Your task to perform on an android device: Is it going to rain tomorrow? Image 0: 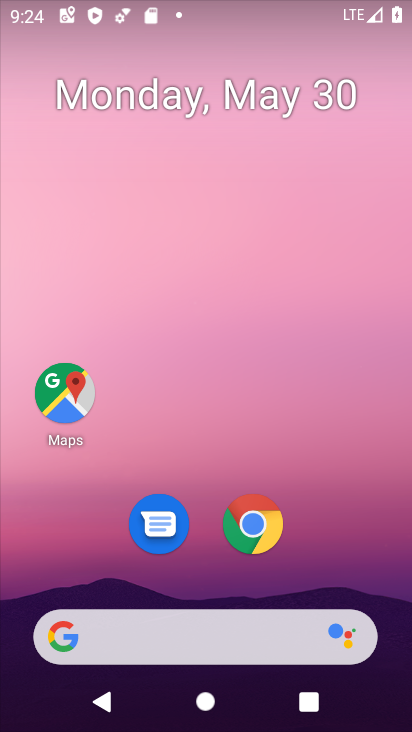
Step 0: click (245, 632)
Your task to perform on an android device: Is it going to rain tomorrow? Image 1: 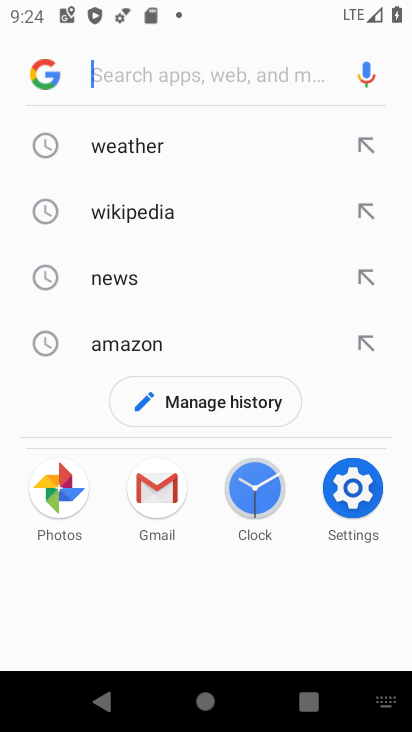
Step 1: click (126, 141)
Your task to perform on an android device: Is it going to rain tomorrow? Image 2: 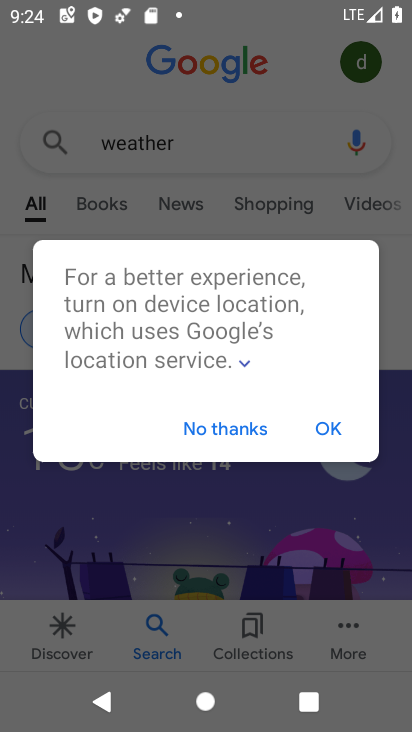
Step 2: click (329, 419)
Your task to perform on an android device: Is it going to rain tomorrow? Image 3: 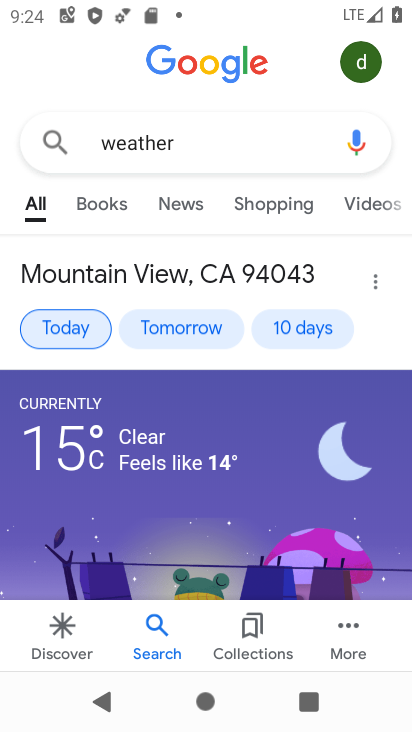
Step 3: click (74, 318)
Your task to perform on an android device: Is it going to rain tomorrow? Image 4: 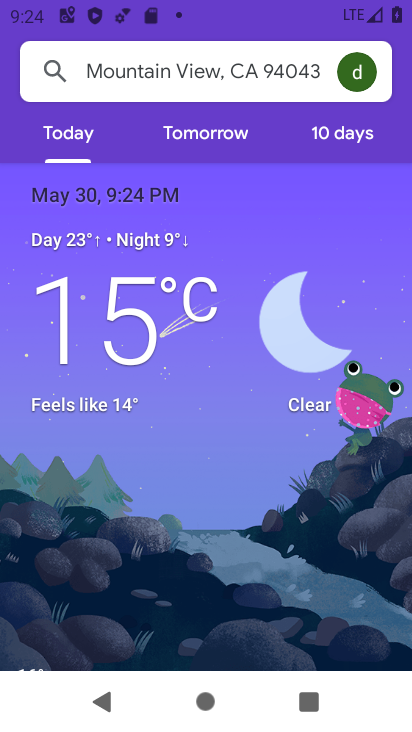
Step 4: click (236, 135)
Your task to perform on an android device: Is it going to rain tomorrow? Image 5: 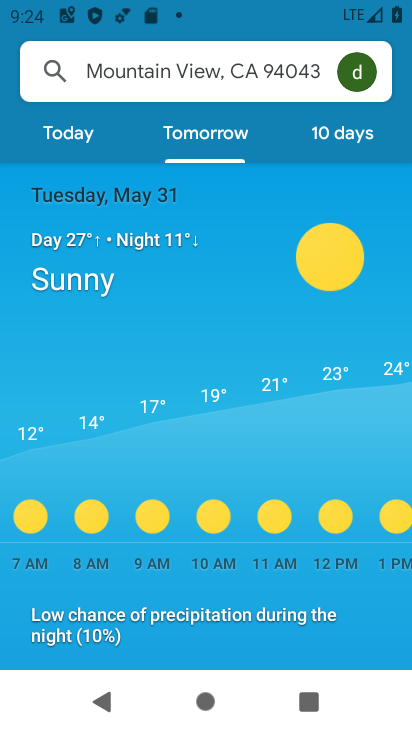
Step 5: task complete